Your task to perform on an android device: Open network settings Image 0: 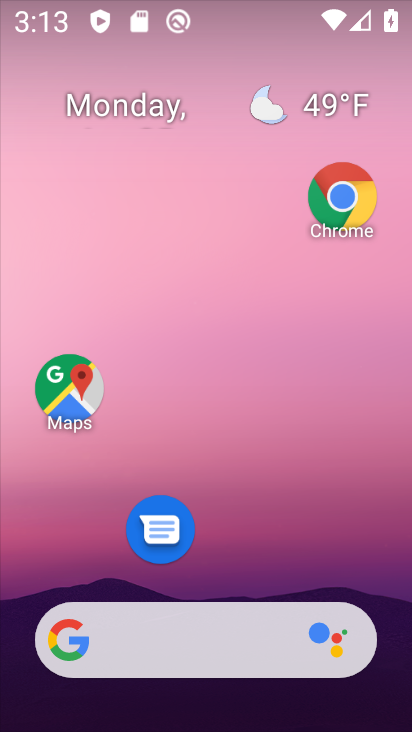
Step 0: drag from (206, 599) to (313, 121)
Your task to perform on an android device: Open network settings Image 1: 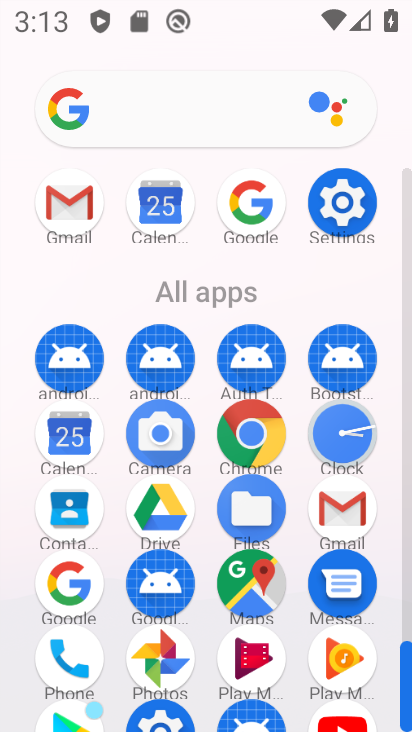
Step 1: drag from (194, 635) to (235, 369)
Your task to perform on an android device: Open network settings Image 2: 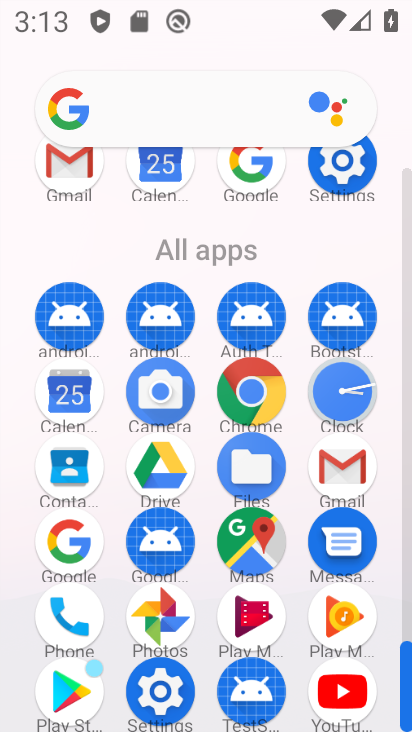
Step 2: click (172, 703)
Your task to perform on an android device: Open network settings Image 3: 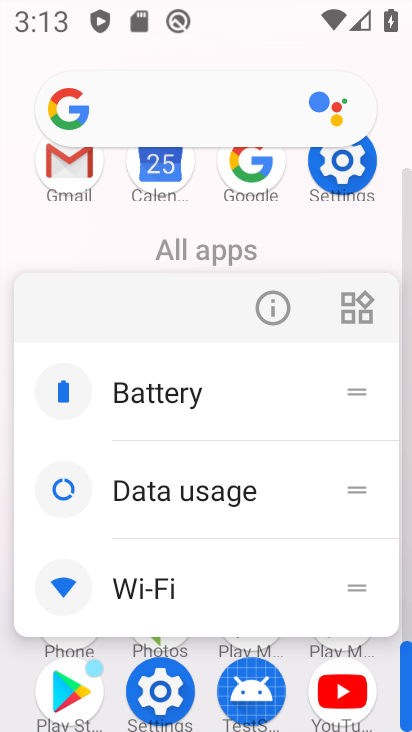
Step 3: click (157, 694)
Your task to perform on an android device: Open network settings Image 4: 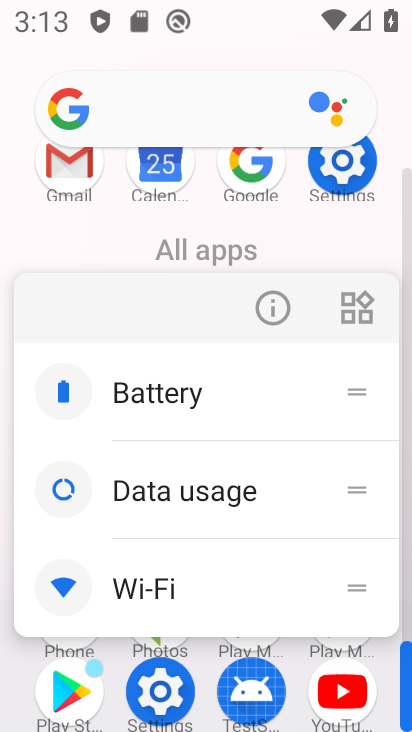
Step 4: click (168, 705)
Your task to perform on an android device: Open network settings Image 5: 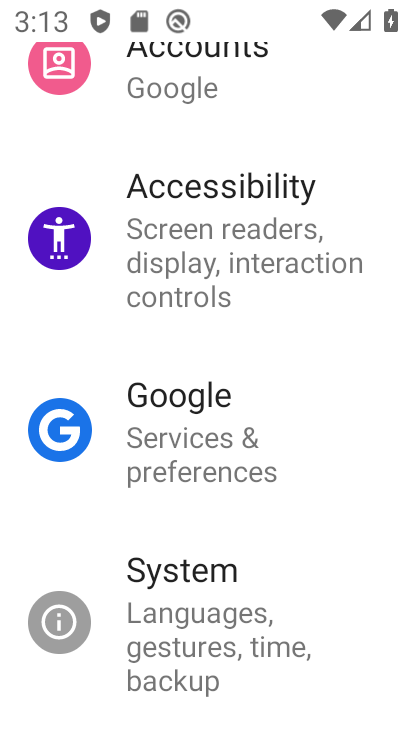
Step 5: drag from (265, 188) to (246, 642)
Your task to perform on an android device: Open network settings Image 6: 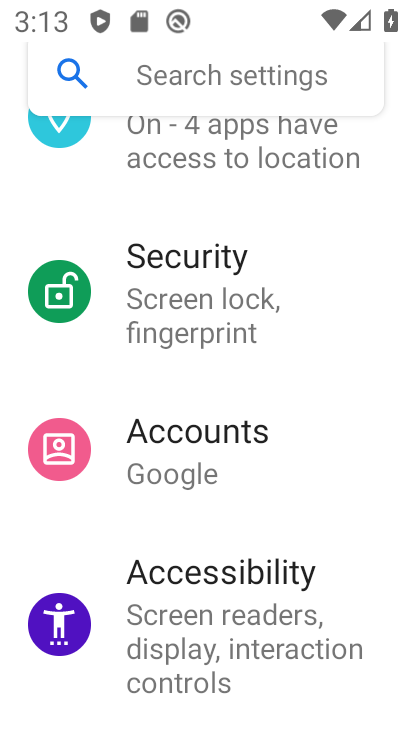
Step 6: drag from (288, 283) to (241, 627)
Your task to perform on an android device: Open network settings Image 7: 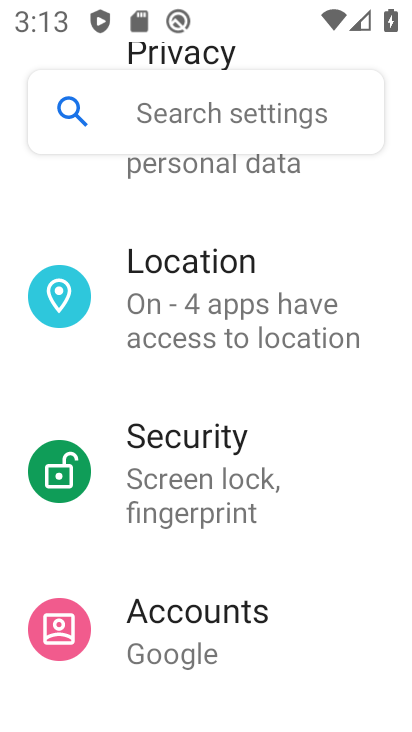
Step 7: drag from (310, 227) to (270, 612)
Your task to perform on an android device: Open network settings Image 8: 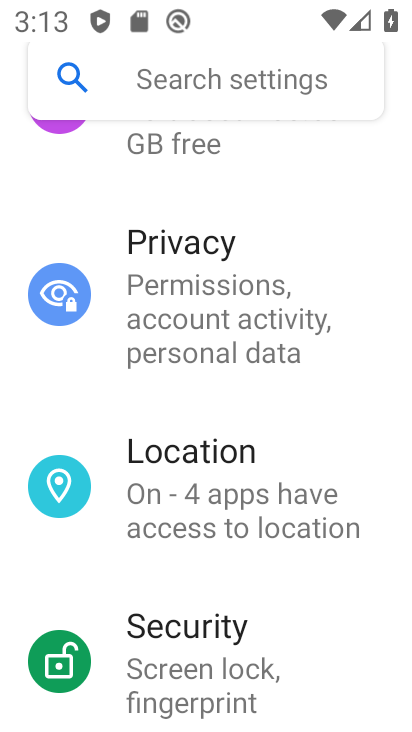
Step 8: drag from (321, 232) to (263, 616)
Your task to perform on an android device: Open network settings Image 9: 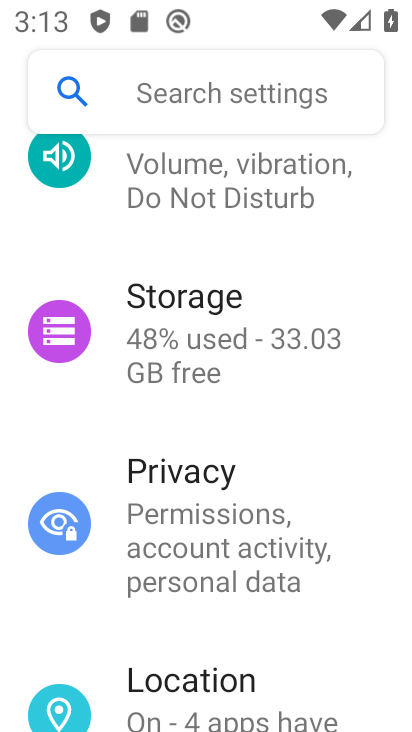
Step 9: drag from (301, 244) to (268, 595)
Your task to perform on an android device: Open network settings Image 10: 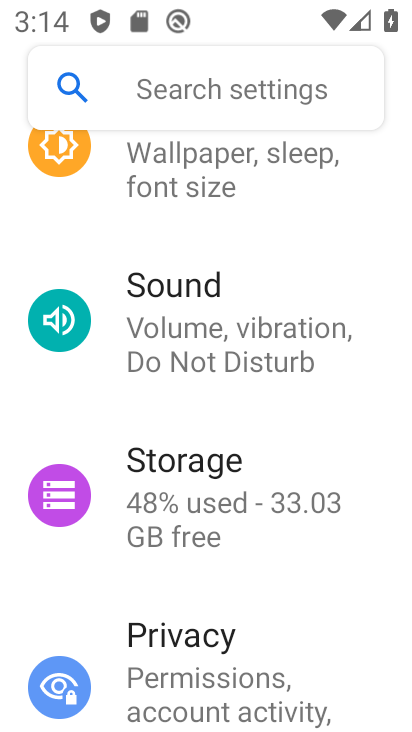
Step 10: drag from (304, 287) to (290, 552)
Your task to perform on an android device: Open network settings Image 11: 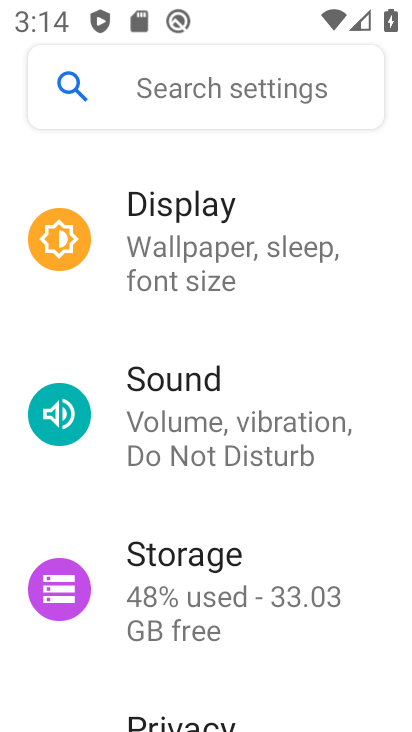
Step 11: drag from (312, 259) to (305, 610)
Your task to perform on an android device: Open network settings Image 12: 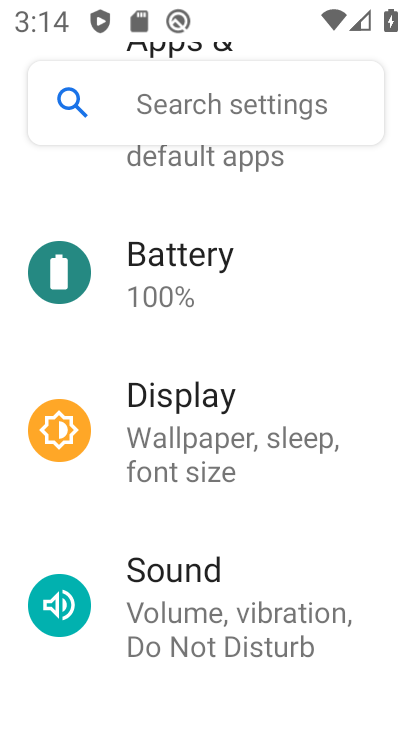
Step 12: drag from (317, 224) to (317, 698)
Your task to perform on an android device: Open network settings Image 13: 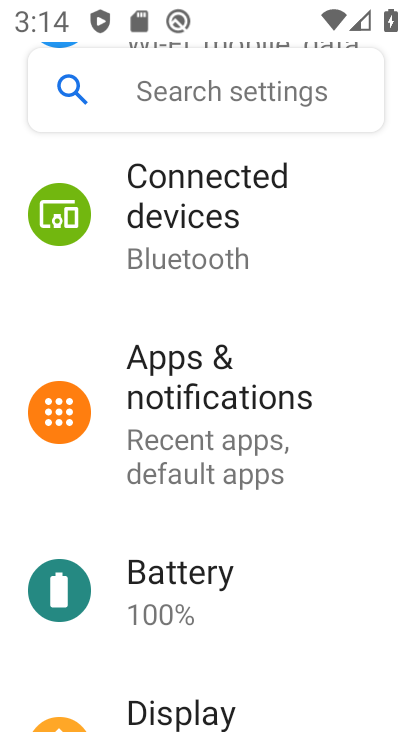
Step 13: drag from (315, 319) to (310, 650)
Your task to perform on an android device: Open network settings Image 14: 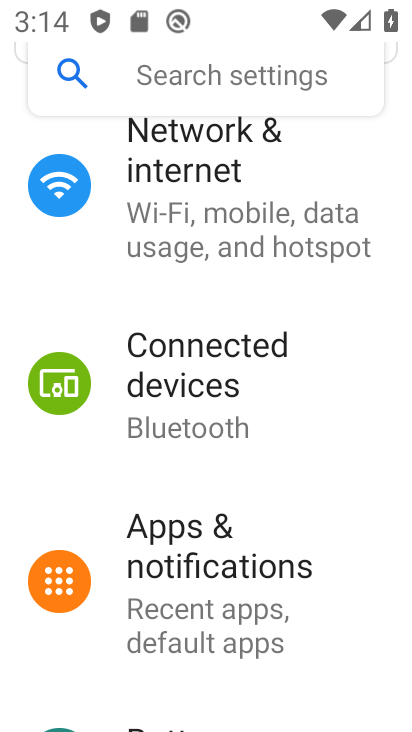
Step 14: click (292, 220)
Your task to perform on an android device: Open network settings Image 15: 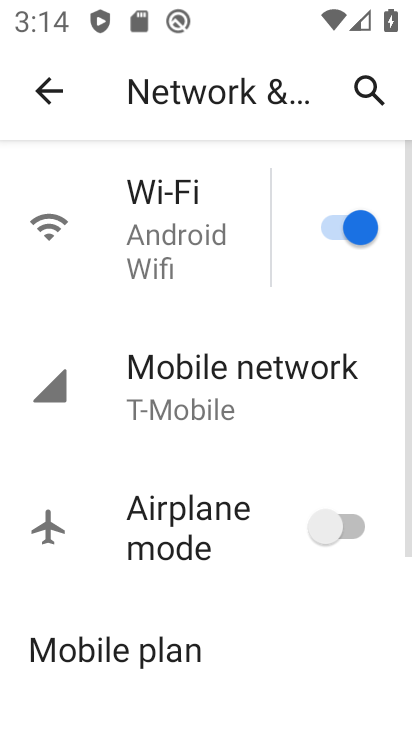
Step 15: click (267, 406)
Your task to perform on an android device: Open network settings Image 16: 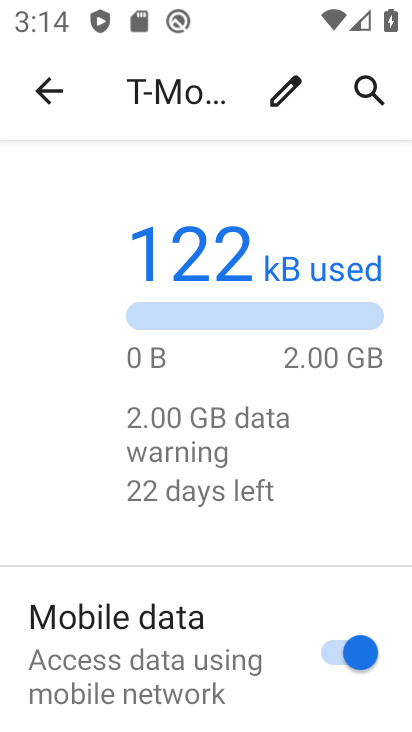
Step 16: task complete